Your task to perform on an android device: Open the calendar and show me this week's events Image 0: 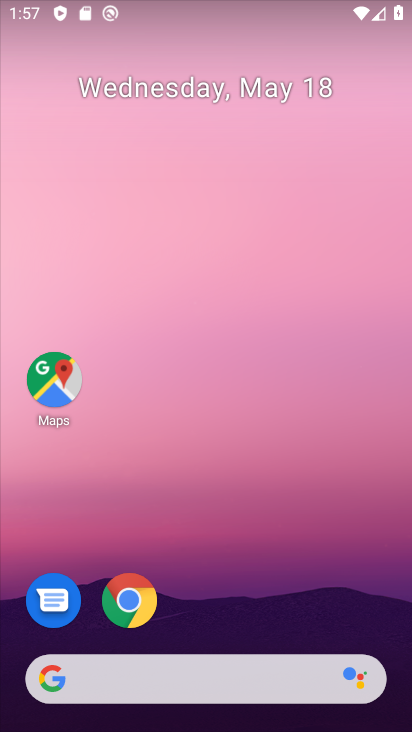
Step 0: press home button
Your task to perform on an android device: Open the calendar and show me this week's events Image 1: 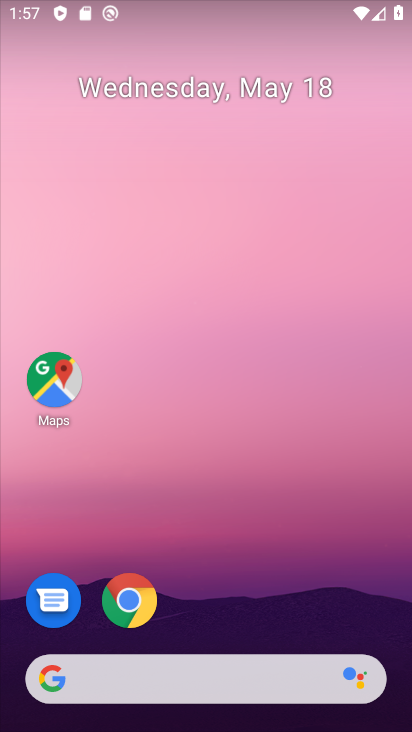
Step 1: drag from (179, 683) to (330, 106)
Your task to perform on an android device: Open the calendar and show me this week's events Image 2: 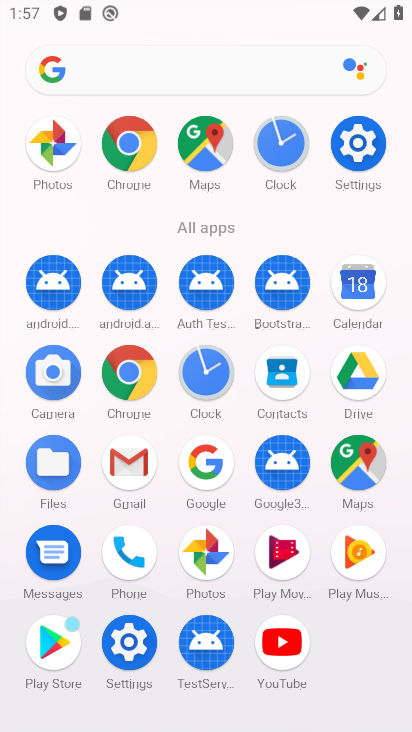
Step 2: click (359, 293)
Your task to perform on an android device: Open the calendar and show me this week's events Image 3: 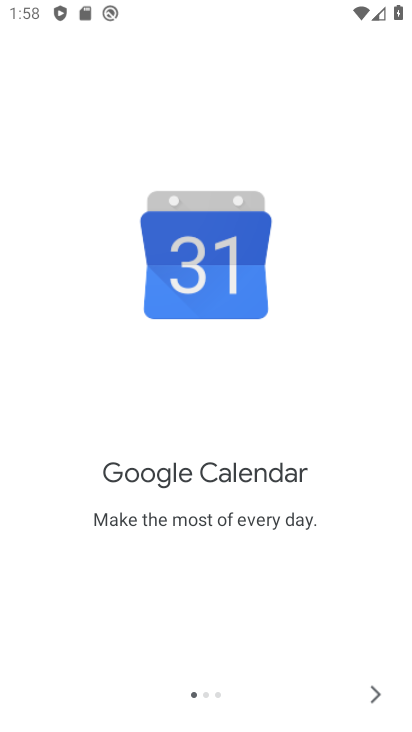
Step 3: click (376, 692)
Your task to perform on an android device: Open the calendar and show me this week's events Image 4: 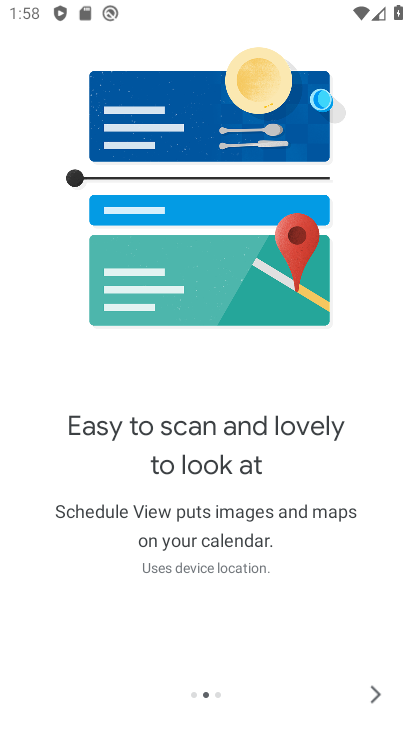
Step 4: click (376, 692)
Your task to perform on an android device: Open the calendar and show me this week's events Image 5: 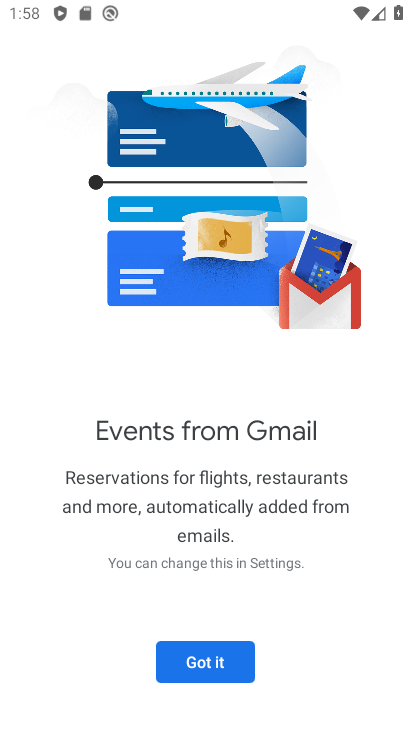
Step 5: click (208, 668)
Your task to perform on an android device: Open the calendar and show me this week's events Image 6: 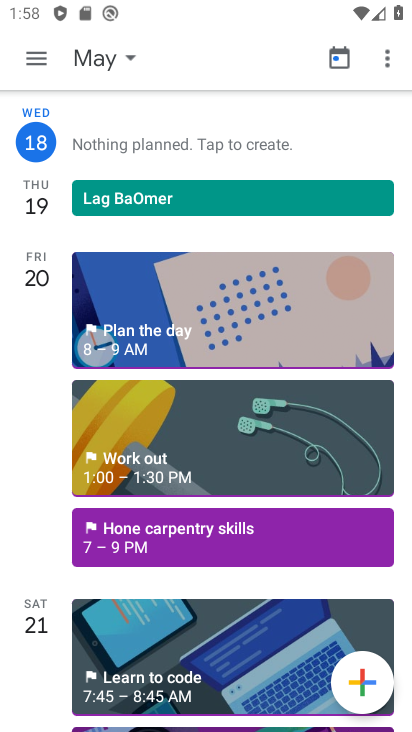
Step 6: click (96, 58)
Your task to perform on an android device: Open the calendar and show me this week's events Image 7: 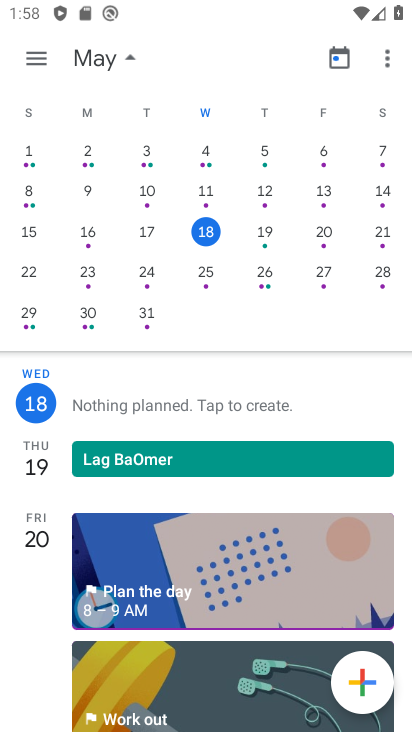
Step 7: click (198, 227)
Your task to perform on an android device: Open the calendar and show me this week's events Image 8: 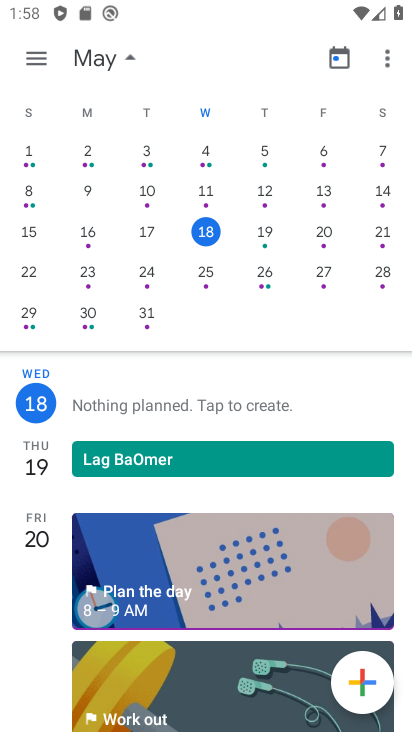
Step 8: click (33, 62)
Your task to perform on an android device: Open the calendar and show me this week's events Image 9: 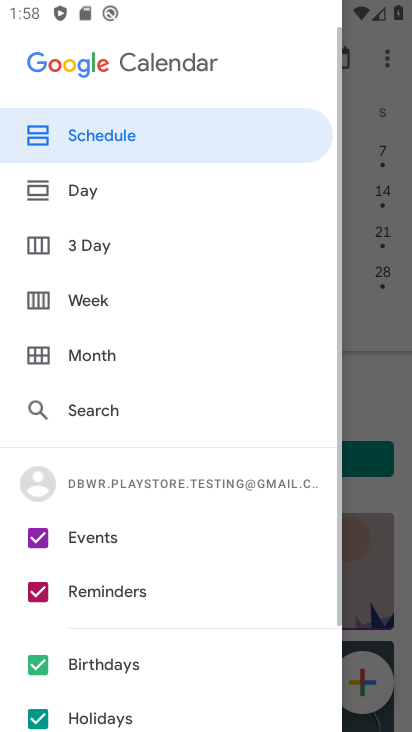
Step 9: click (99, 302)
Your task to perform on an android device: Open the calendar and show me this week's events Image 10: 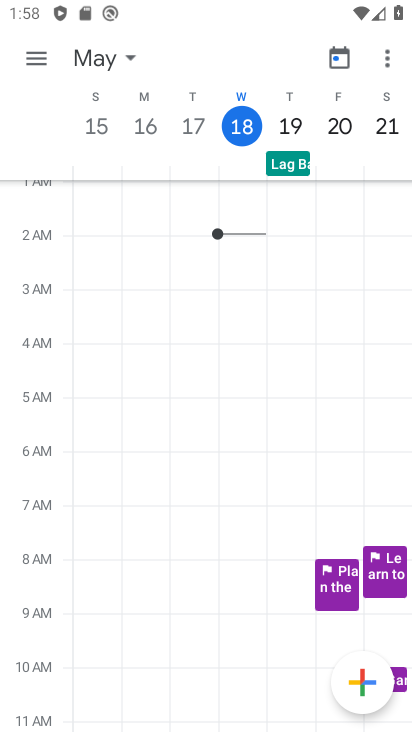
Step 10: click (35, 61)
Your task to perform on an android device: Open the calendar and show me this week's events Image 11: 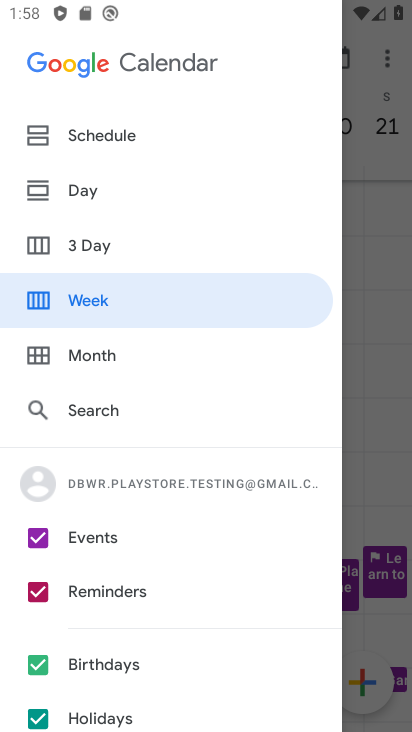
Step 11: click (76, 136)
Your task to perform on an android device: Open the calendar and show me this week's events Image 12: 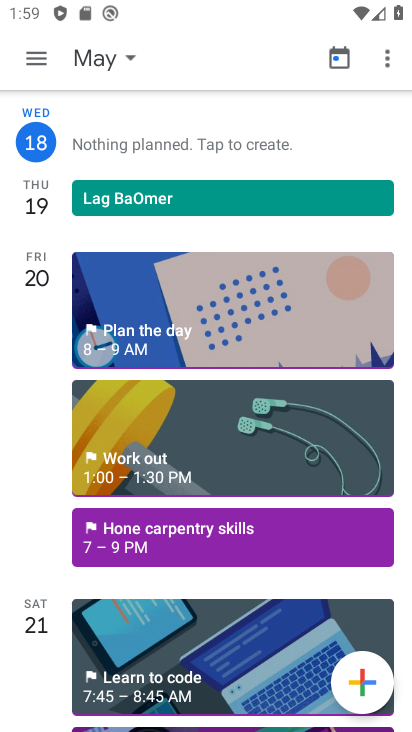
Step 12: task complete